Your task to perform on an android device: Go to internet settings Image 0: 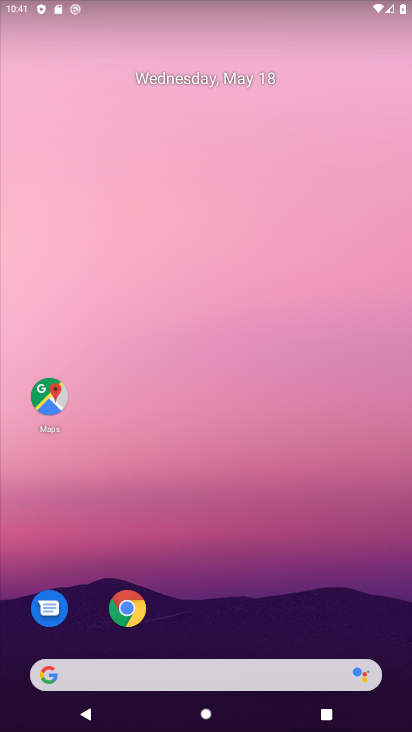
Step 0: press home button
Your task to perform on an android device: Go to internet settings Image 1: 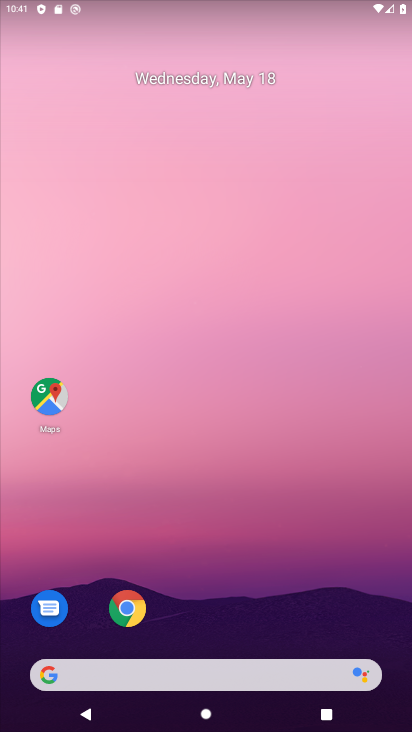
Step 1: drag from (244, 569) to (242, 77)
Your task to perform on an android device: Go to internet settings Image 2: 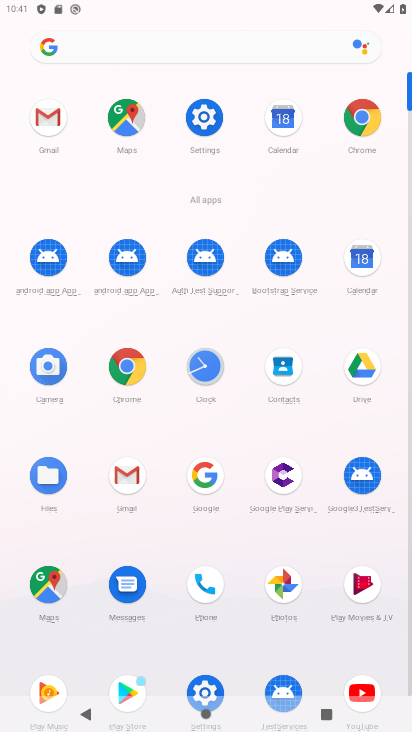
Step 2: click (191, 125)
Your task to perform on an android device: Go to internet settings Image 3: 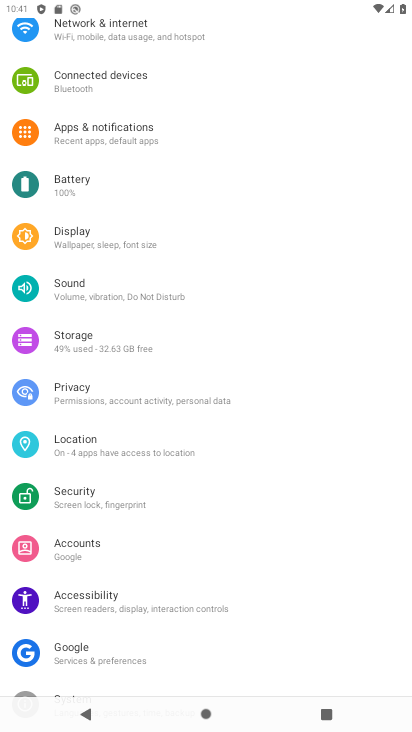
Step 3: drag from (191, 125) to (252, 720)
Your task to perform on an android device: Go to internet settings Image 4: 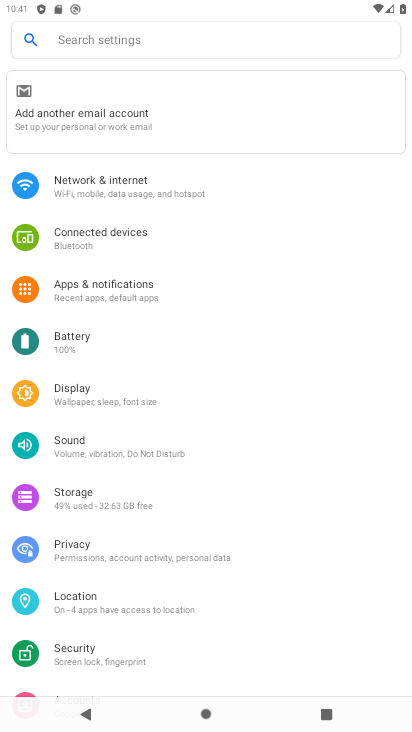
Step 4: click (100, 192)
Your task to perform on an android device: Go to internet settings Image 5: 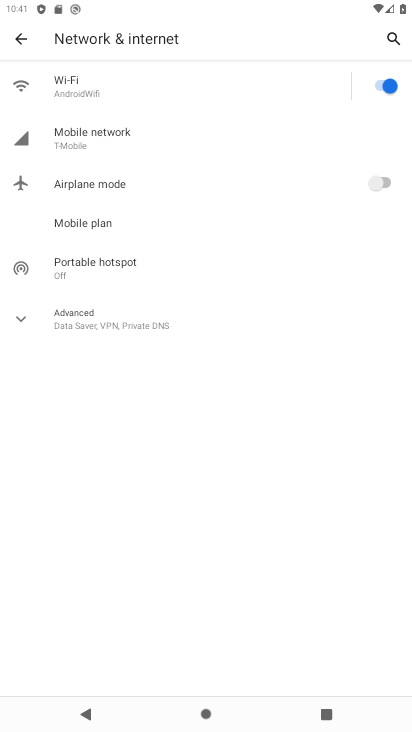
Step 5: task complete